Your task to perform on an android device: Go to privacy settings Image 0: 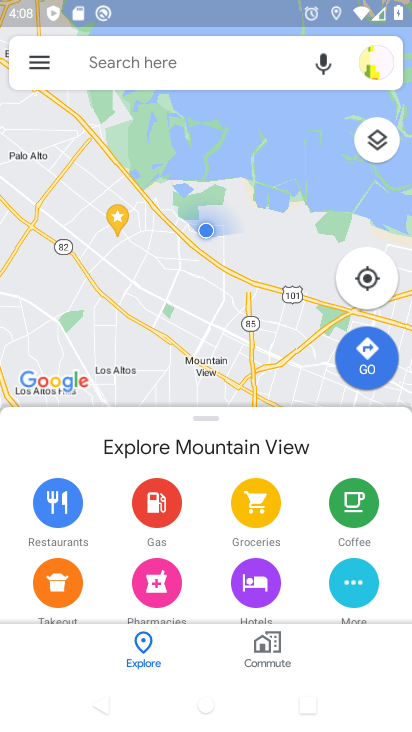
Step 0: press home button
Your task to perform on an android device: Go to privacy settings Image 1: 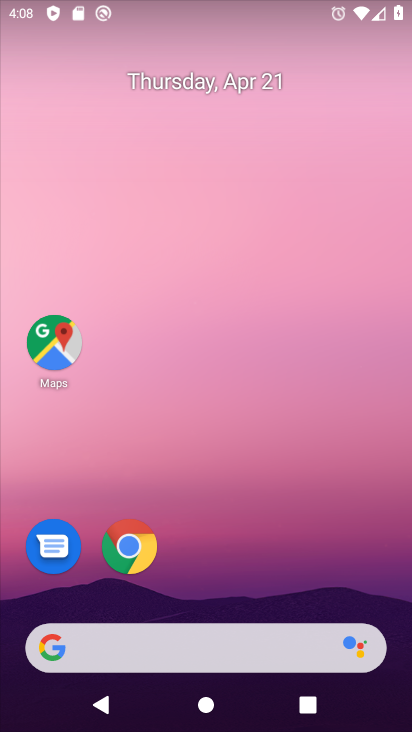
Step 1: drag from (292, 541) to (284, 114)
Your task to perform on an android device: Go to privacy settings Image 2: 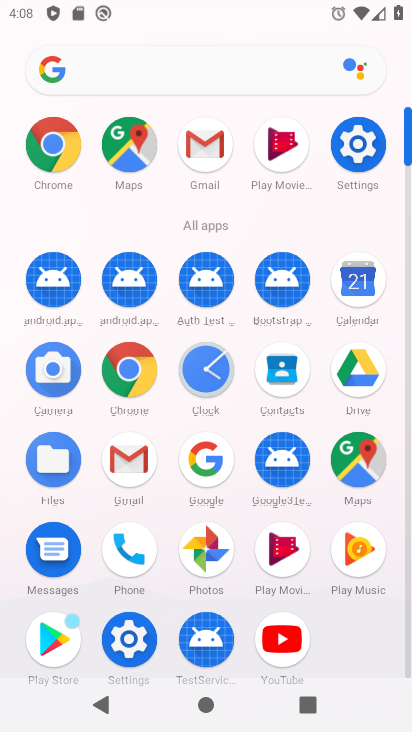
Step 2: click (367, 142)
Your task to perform on an android device: Go to privacy settings Image 3: 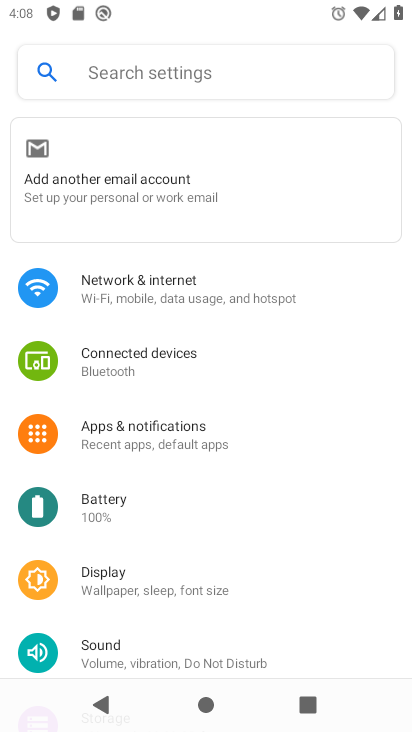
Step 3: drag from (203, 566) to (205, 307)
Your task to perform on an android device: Go to privacy settings Image 4: 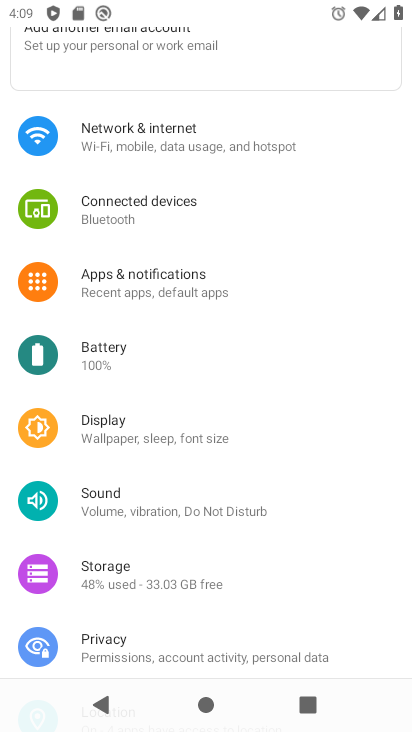
Step 4: drag from (193, 577) to (219, 271)
Your task to perform on an android device: Go to privacy settings Image 5: 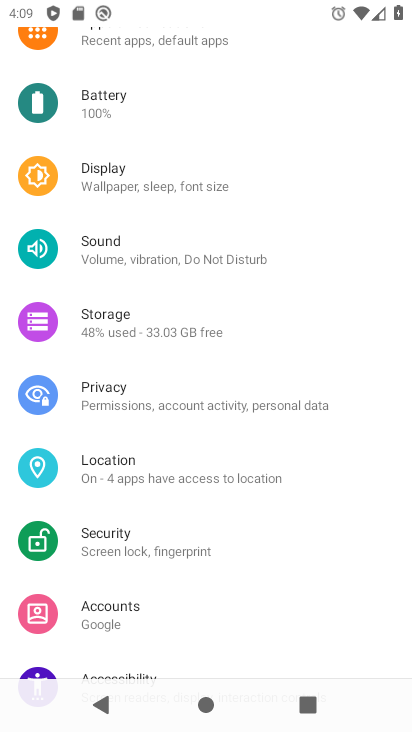
Step 5: click (176, 398)
Your task to perform on an android device: Go to privacy settings Image 6: 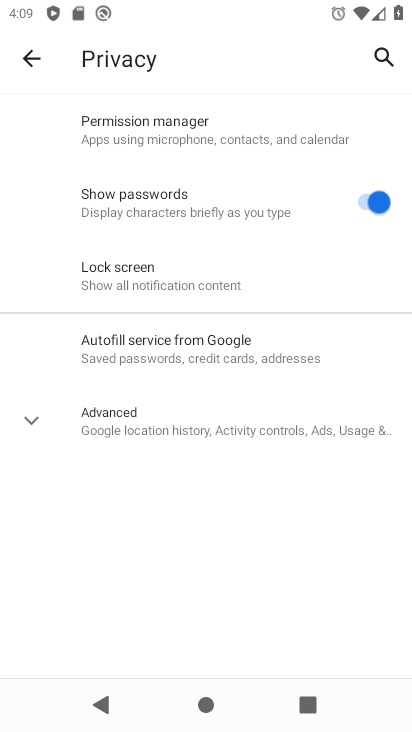
Step 6: task complete